Your task to perform on an android device: toggle translation in the chrome app Image 0: 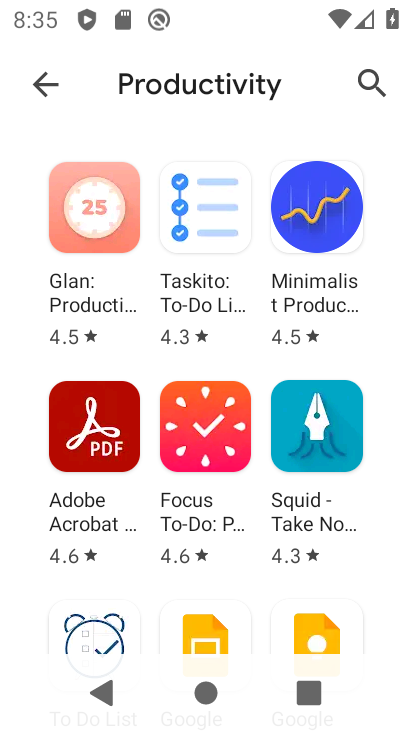
Step 0: press back button
Your task to perform on an android device: toggle translation in the chrome app Image 1: 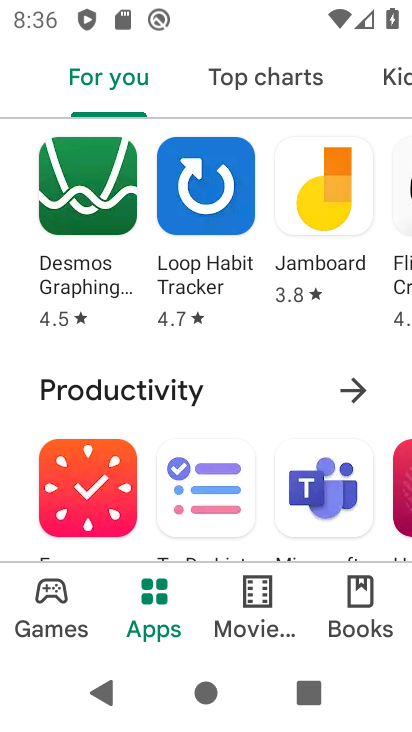
Step 1: press back button
Your task to perform on an android device: toggle translation in the chrome app Image 2: 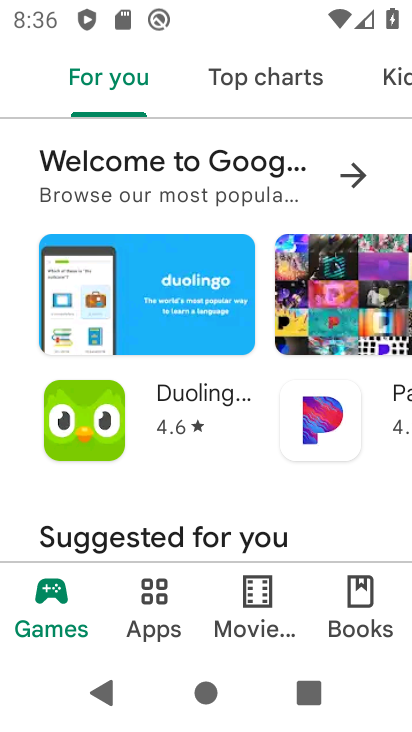
Step 2: press back button
Your task to perform on an android device: toggle translation in the chrome app Image 3: 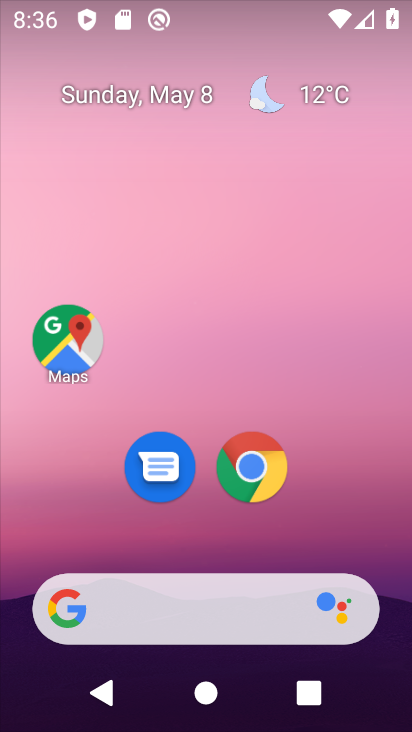
Step 3: click (251, 466)
Your task to perform on an android device: toggle translation in the chrome app Image 4: 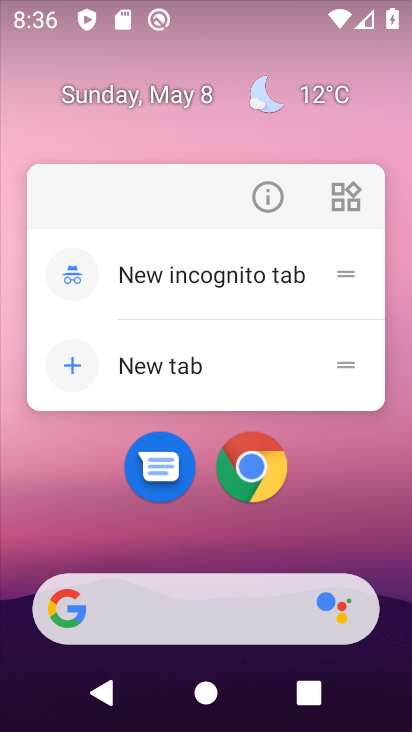
Step 4: click (250, 464)
Your task to perform on an android device: toggle translation in the chrome app Image 5: 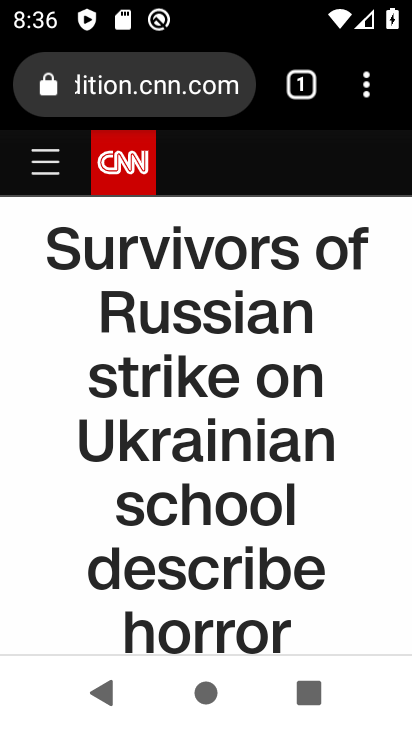
Step 5: drag from (371, 80) to (109, 495)
Your task to perform on an android device: toggle translation in the chrome app Image 6: 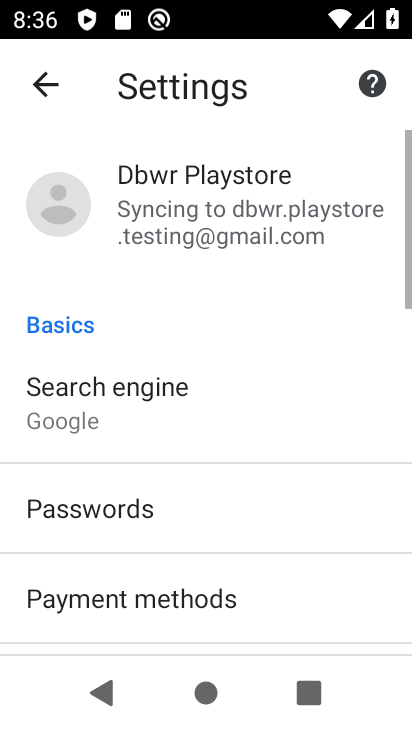
Step 6: drag from (228, 605) to (275, 251)
Your task to perform on an android device: toggle translation in the chrome app Image 7: 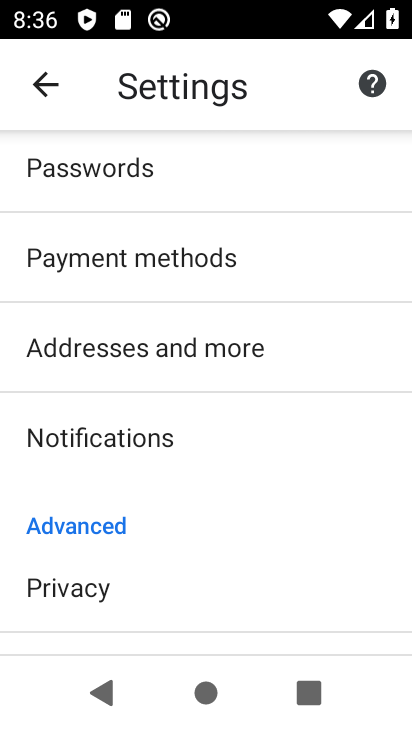
Step 7: drag from (151, 601) to (239, 154)
Your task to perform on an android device: toggle translation in the chrome app Image 8: 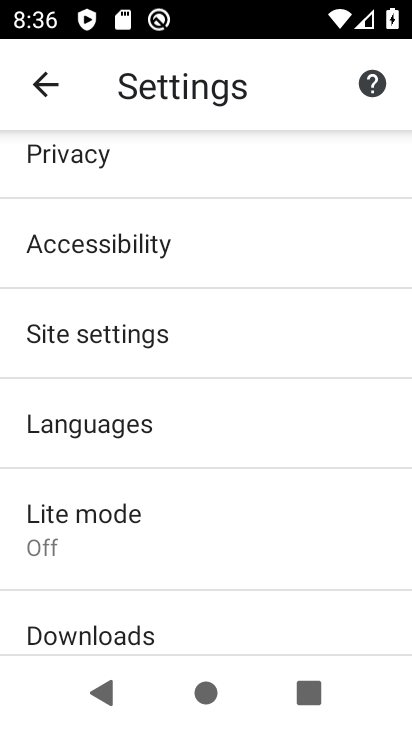
Step 8: click (92, 416)
Your task to perform on an android device: toggle translation in the chrome app Image 9: 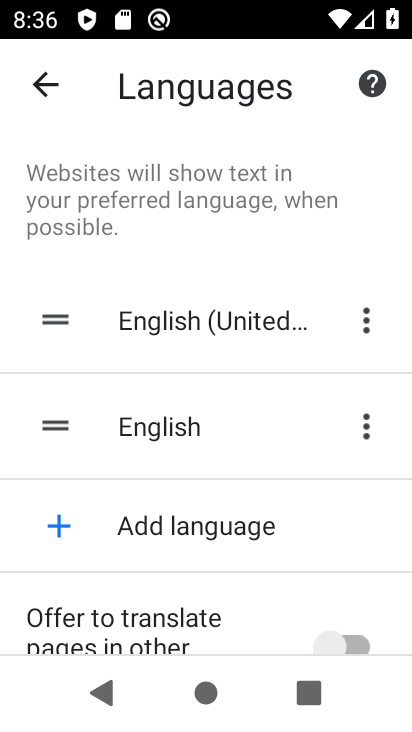
Step 9: click (359, 637)
Your task to perform on an android device: toggle translation in the chrome app Image 10: 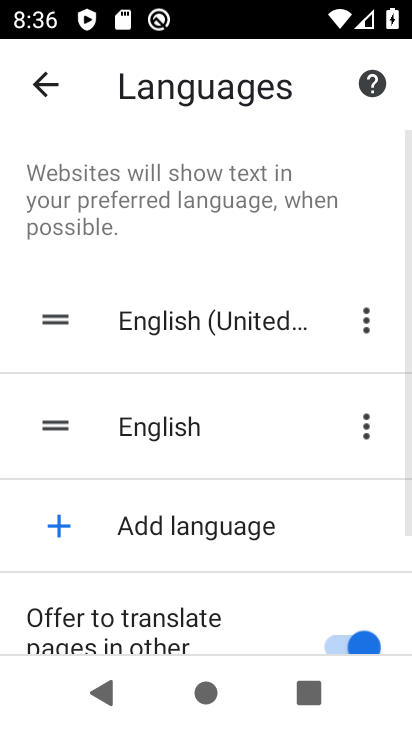
Step 10: task complete